Your task to perform on an android device: check android version Image 0: 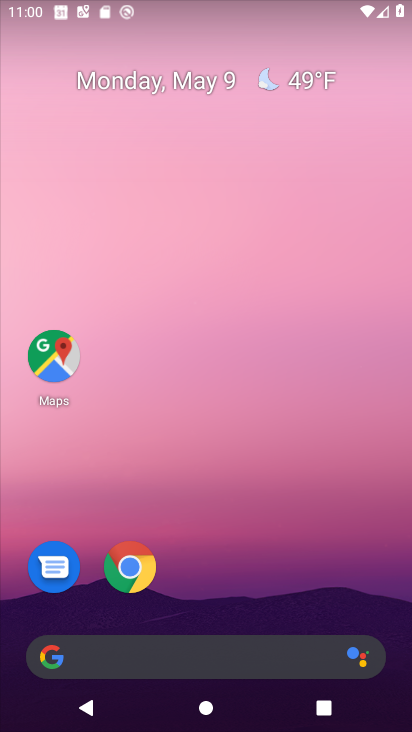
Step 0: drag from (203, 600) to (218, 150)
Your task to perform on an android device: check android version Image 1: 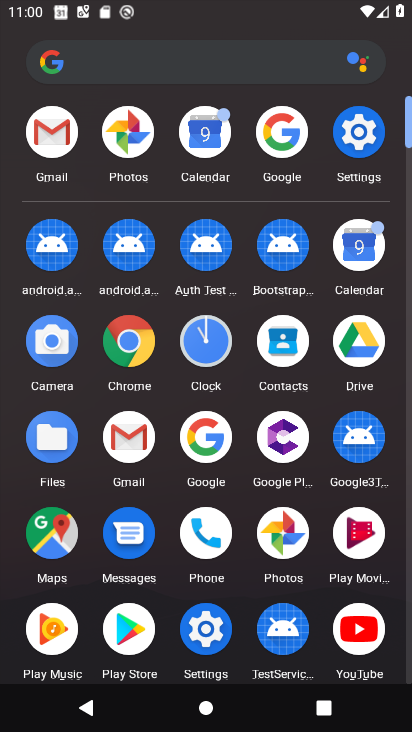
Step 1: click (363, 145)
Your task to perform on an android device: check android version Image 2: 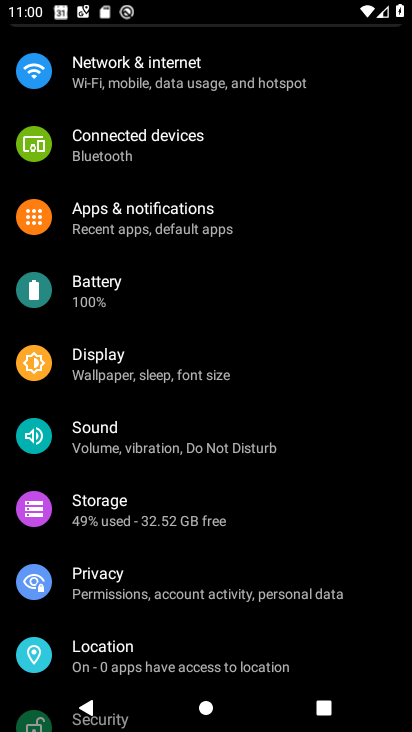
Step 2: drag from (102, 690) to (151, 277)
Your task to perform on an android device: check android version Image 3: 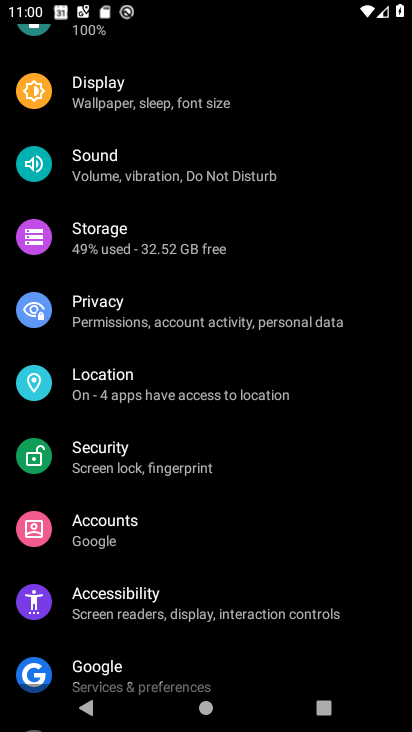
Step 3: drag from (122, 688) to (136, 359)
Your task to perform on an android device: check android version Image 4: 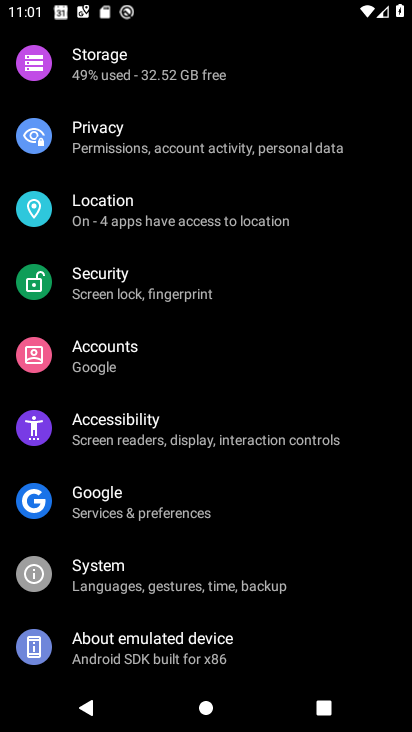
Step 4: click (138, 645)
Your task to perform on an android device: check android version Image 5: 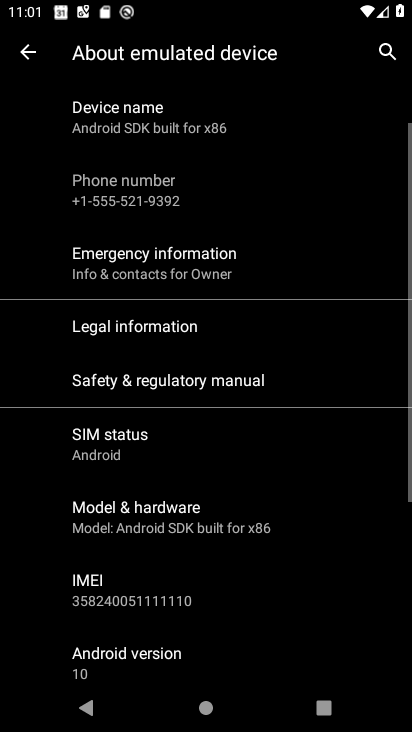
Step 5: click (109, 667)
Your task to perform on an android device: check android version Image 6: 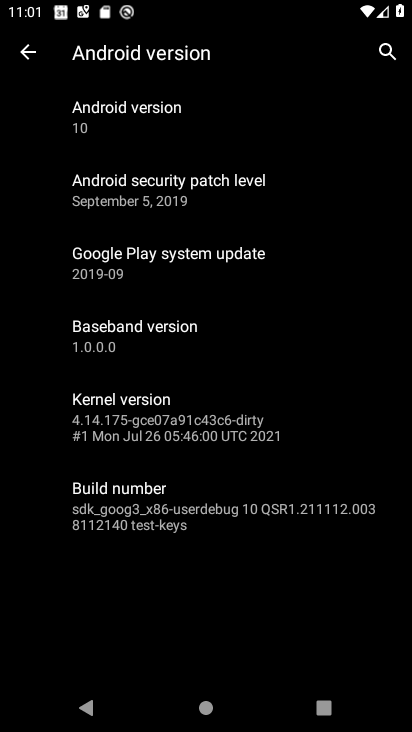
Step 6: task complete